Your task to perform on an android device: set the timer Image 0: 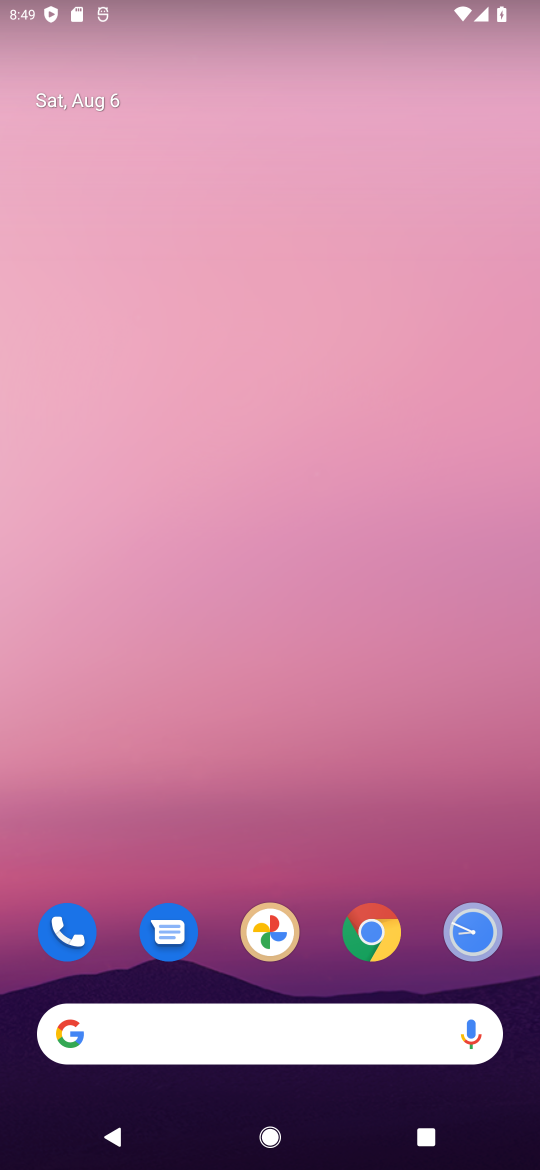
Step 0: drag from (190, 1044) to (209, 438)
Your task to perform on an android device: set the timer Image 1: 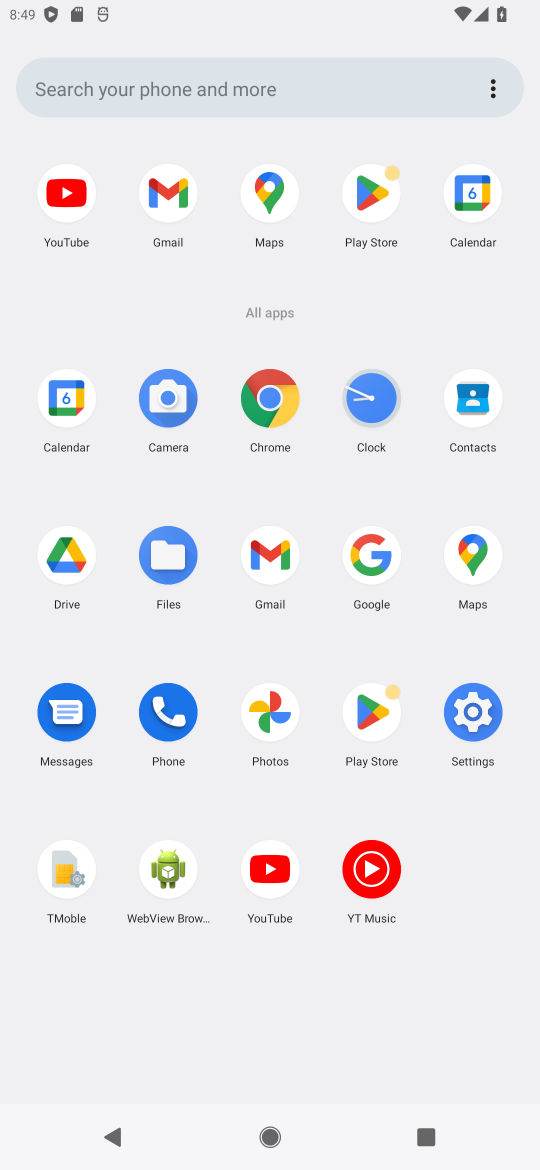
Step 1: click (373, 398)
Your task to perform on an android device: set the timer Image 2: 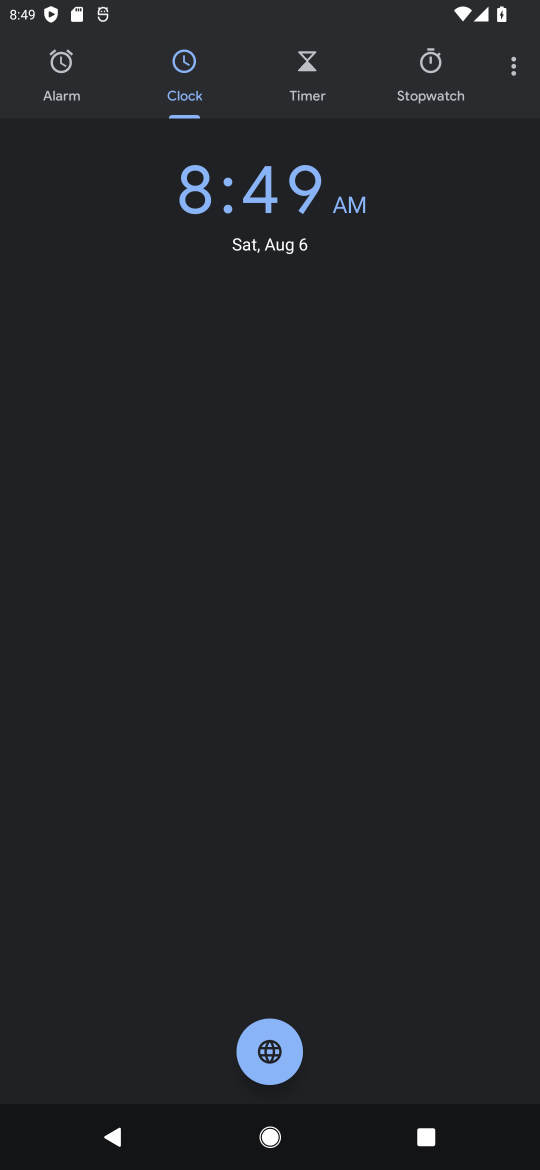
Step 2: click (310, 73)
Your task to perform on an android device: set the timer Image 3: 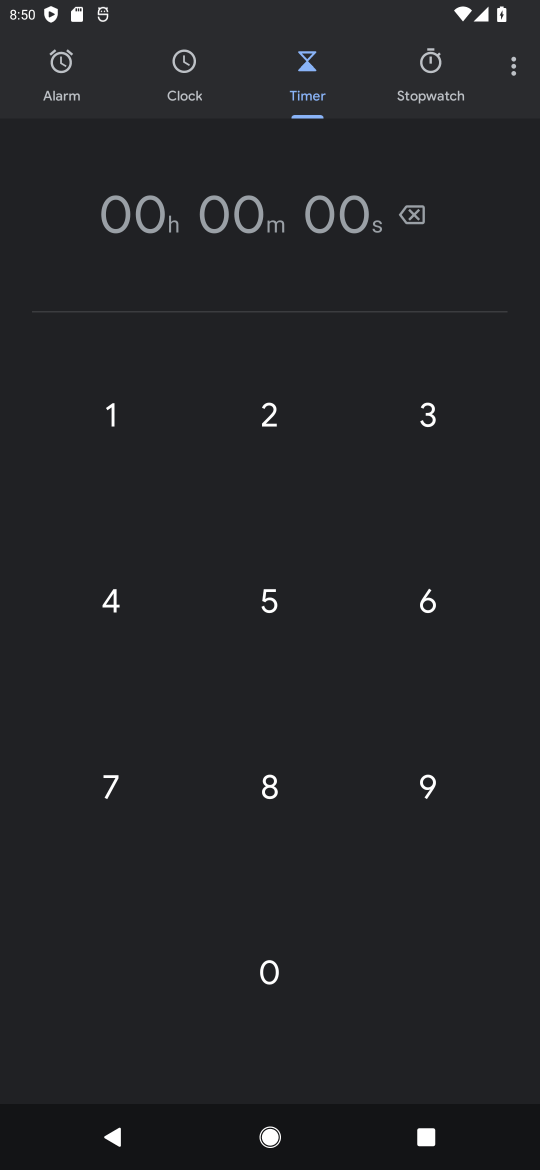
Step 3: type "357"
Your task to perform on an android device: set the timer Image 4: 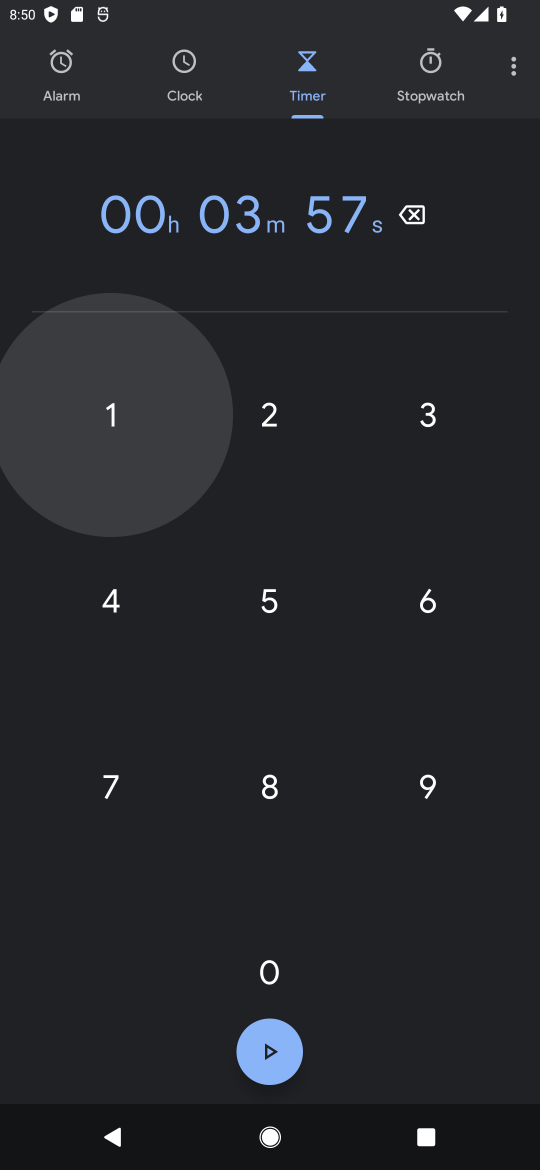
Step 4: click (269, 1057)
Your task to perform on an android device: set the timer Image 5: 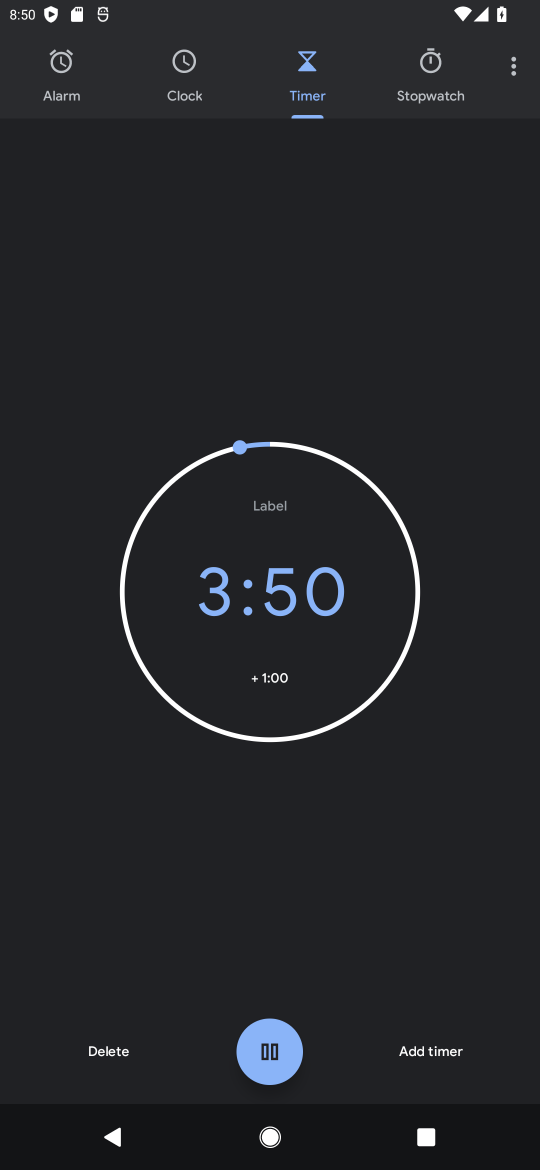
Step 5: click (269, 1057)
Your task to perform on an android device: set the timer Image 6: 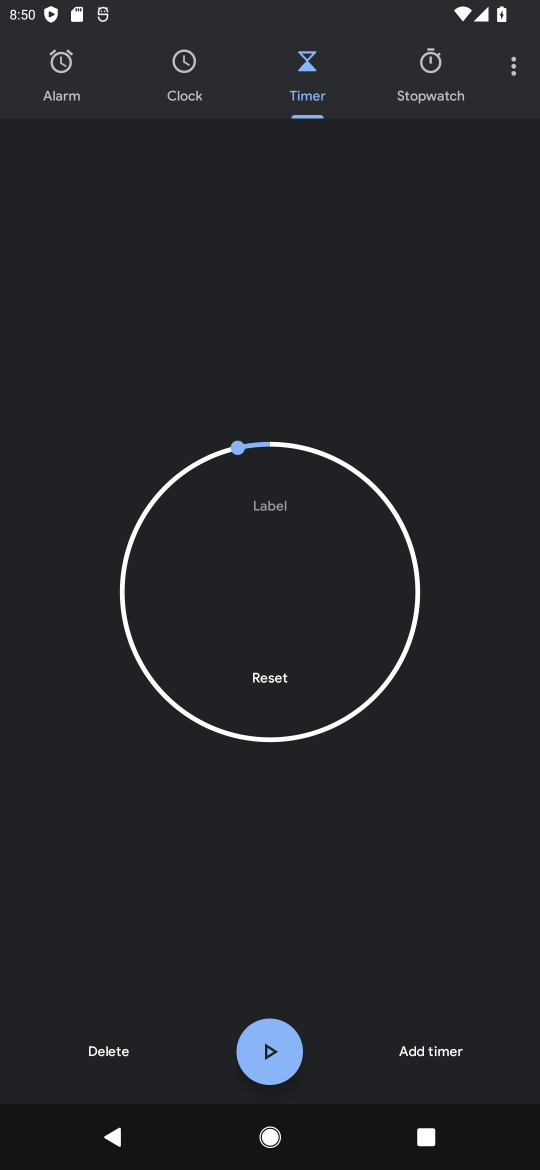
Step 6: task complete